Your task to perform on an android device: toggle pop-ups in chrome Image 0: 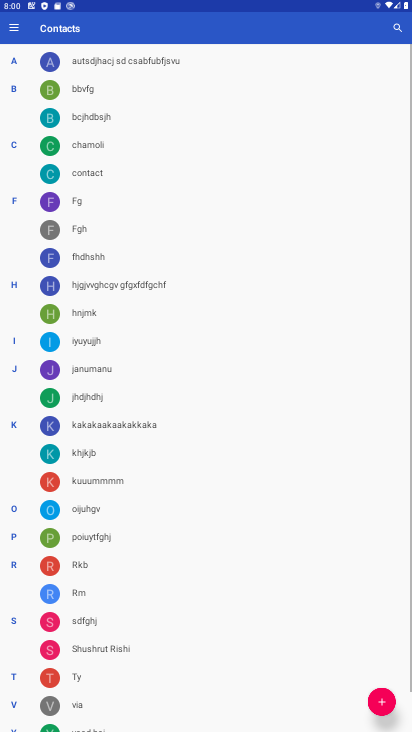
Step 0: click (410, 692)
Your task to perform on an android device: toggle pop-ups in chrome Image 1: 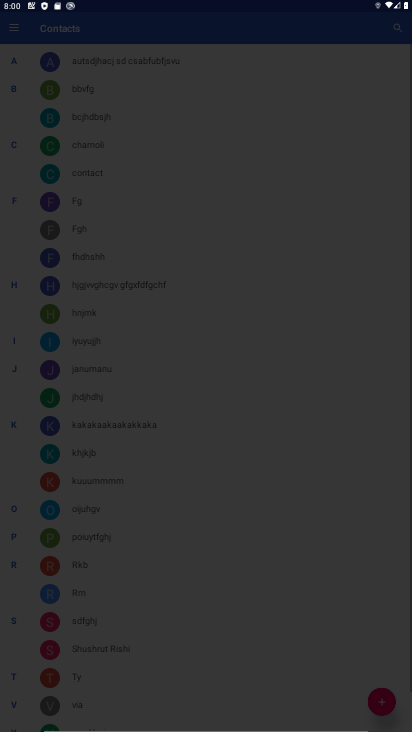
Step 1: press back button
Your task to perform on an android device: toggle pop-ups in chrome Image 2: 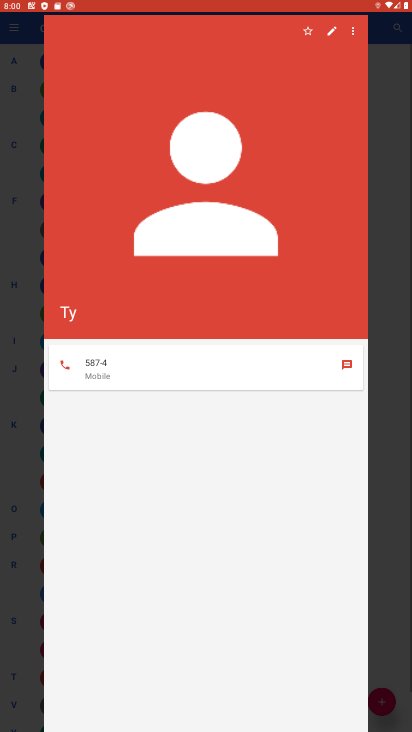
Step 2: press back button
Your task to perform on an android device: toggle pop-ups in chrome Image 3: 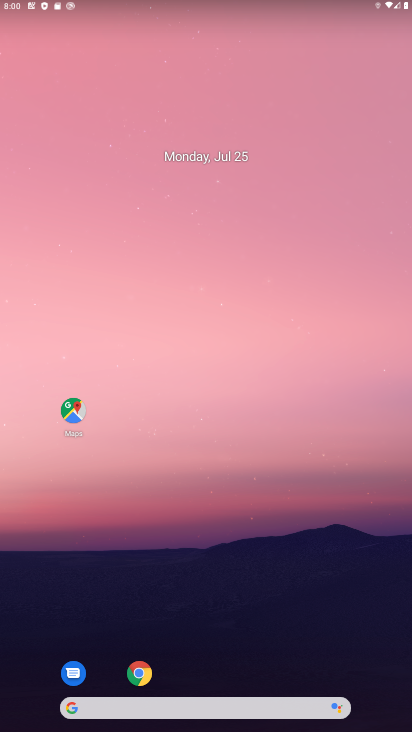
Step 3: drag from (274, 608) to (262, 523)
Your task to perform on an android device: toggle pop-ups in chrome Image 4: 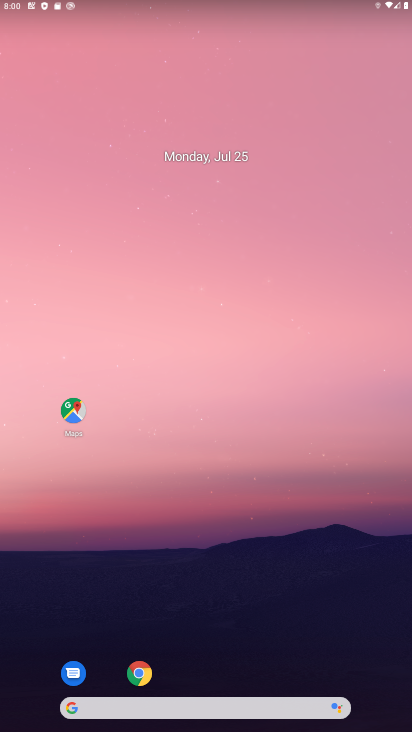
Step 4: drag from (214, 678) to (220, 454)
Your task to perform on an android device: toggle pop-ups in chrome Image 5: 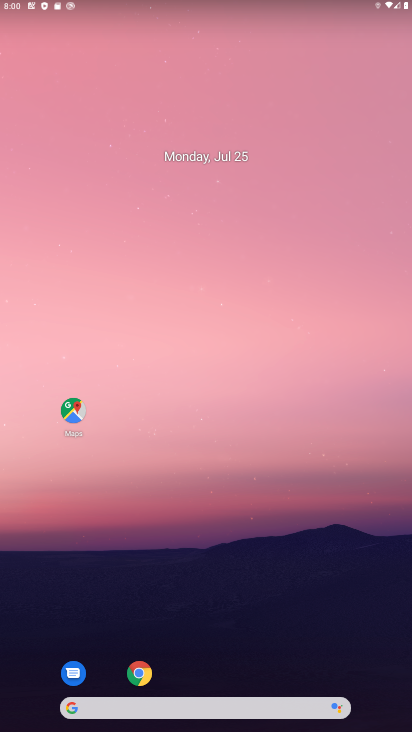
Step 5: drag from (231, 710) to (222, 572)
Your task to perform on an android device: toggle pop-ups in chrome Image 6: 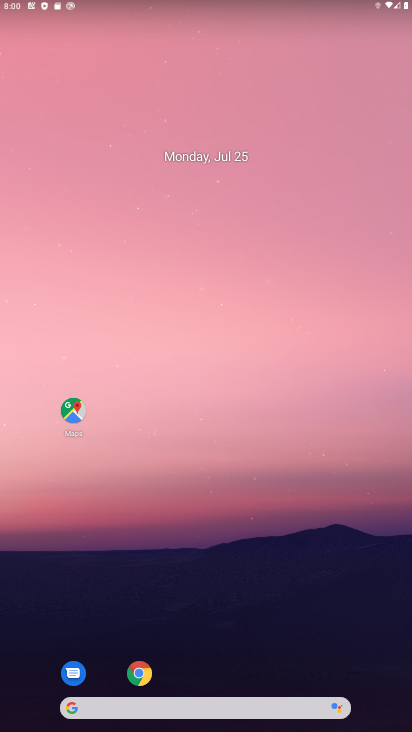
Step 6: drag from (183, 454) to (173, 384)
Your task to perform on an android device: toggle pop-ups in chrome Image 7: 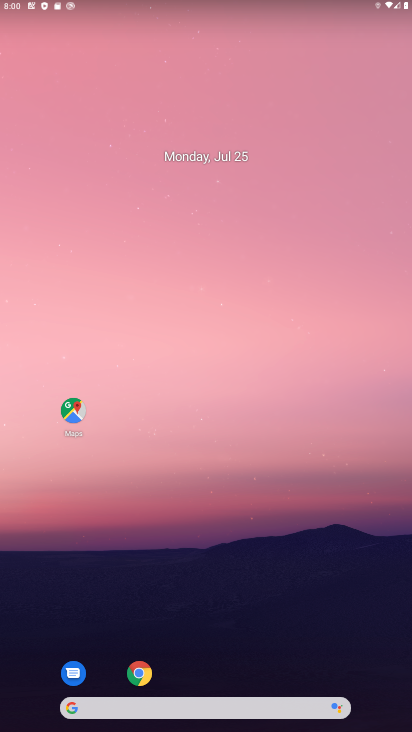
Step 7: drag from (237, 609) to (241, 5)
Your task to perform on an android device: toggle pop-ups in chrome Image 8: 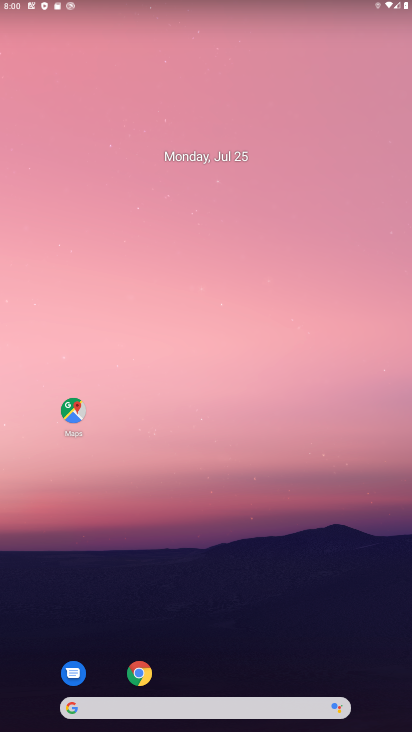
Step 8: drag from (246, 590) to (205, 288)
Your task to perform on an android device: toggle pop-ups in chrome Image 9: 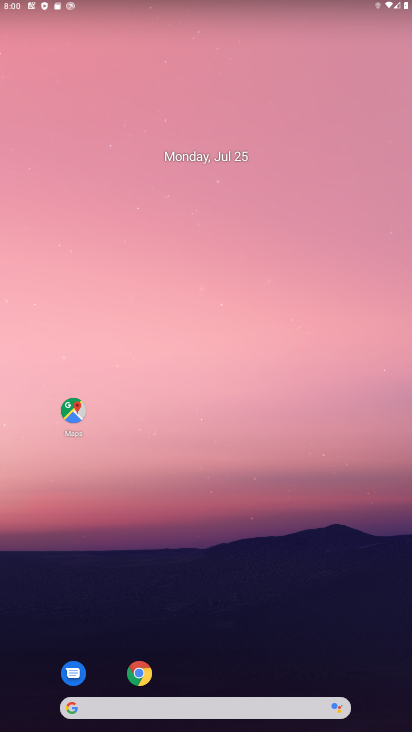
Step 9: click (244, 154)
Your task to perform on an android device: toggle pop-ups in chrome Image 10: 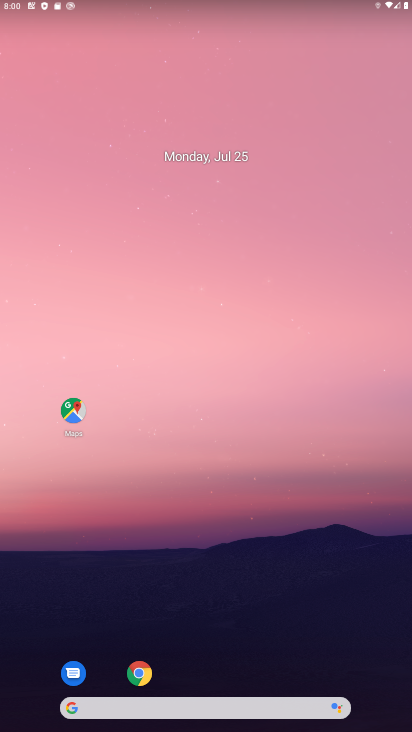
Step 10: drag from (254, 554) to (275, 61)
Your task to perform on an android device: toggle pop-ups in chrome Image 11: 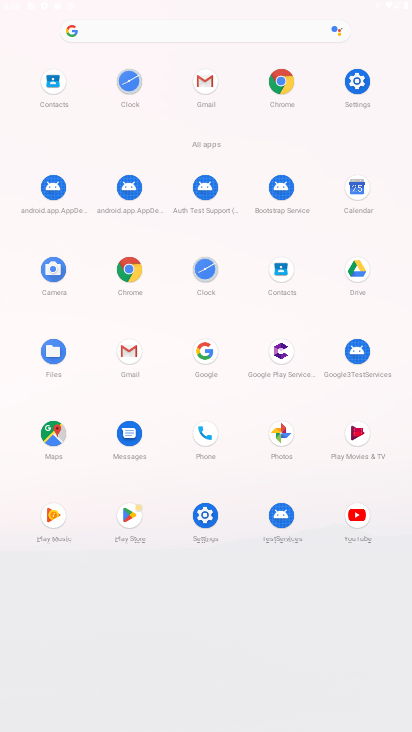
Step 11: drag from (255, 646) to (277, 90)
Your task to perform on an android device: toggle pop-ups in chrome Image 12: 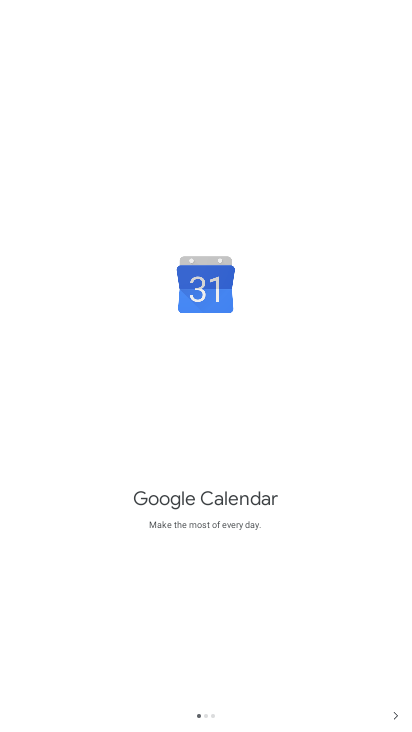
Step 12: press back button
Your task to perform on an android device: toggle pop-ups in chrome Image 13: 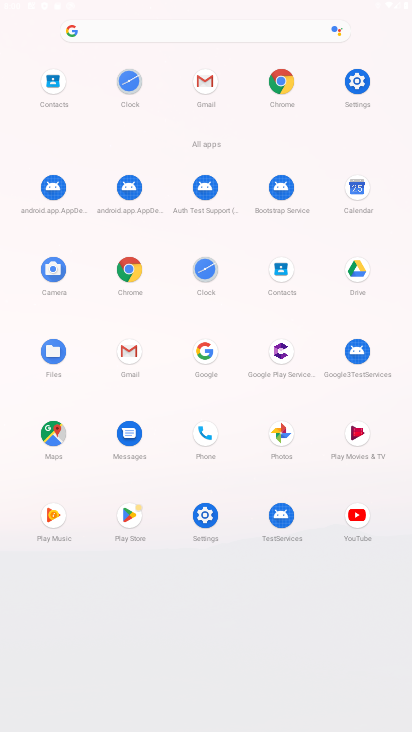
Step 13: click (120, 269)
Your task to perform on an android device: toggle pop-ups in chrome Image 14: 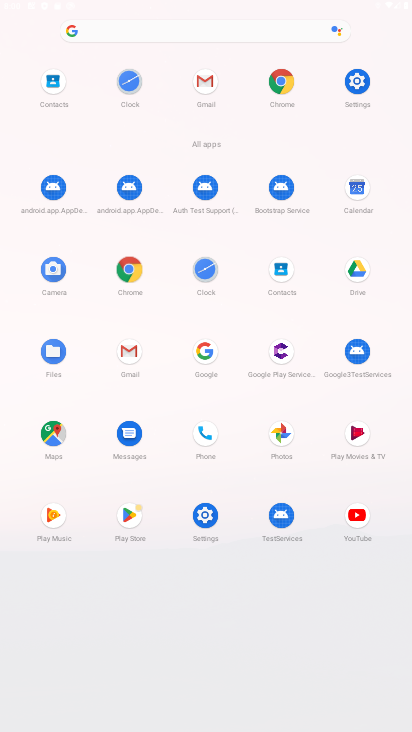
Step 14: click (122, 266)
Your task to perform on an android device: toggle pop-ups in chrome Image 15: 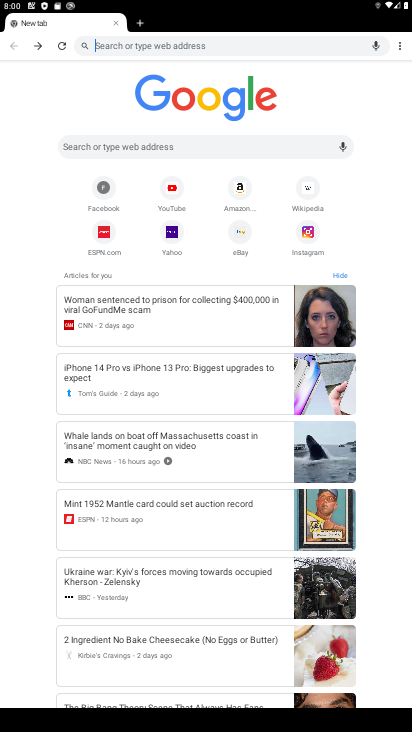
Step 15: click (400, 46)
Your task to perform on an android device: toggle pop-ups in chrome Image 16: 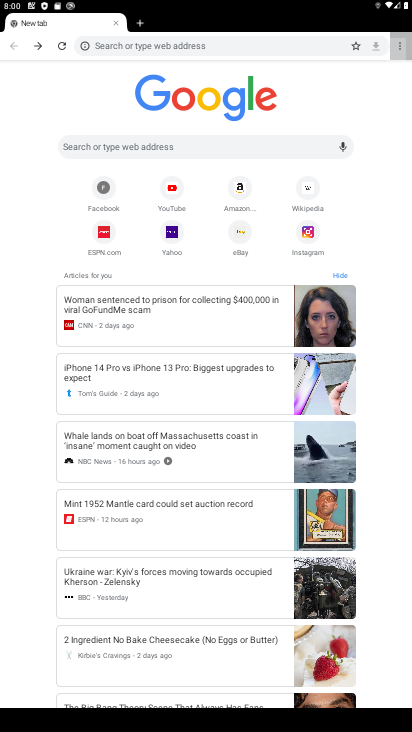
Step 16: click (400, 46)
Your task to perform on an android device: toggle pop-ups in chrome Image 17: 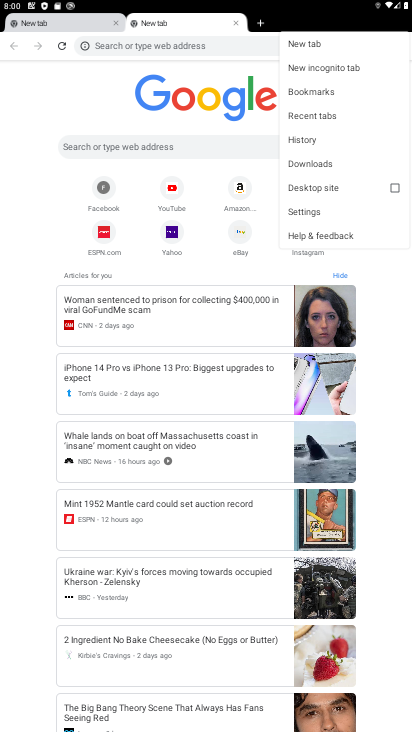
Step 17: click (294, 217)
Your task to perform on an android device: toggle pop-ups in chrome Image 18: 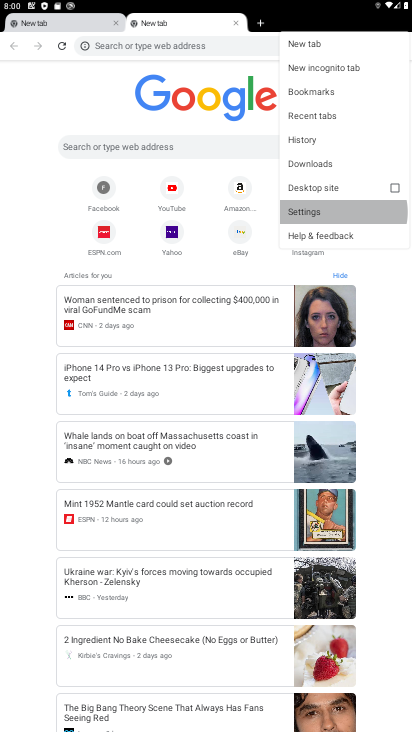
Step 18: click (300, 210)
Your task to perform on an android device: toggle pop-ups in chrome Image 19: 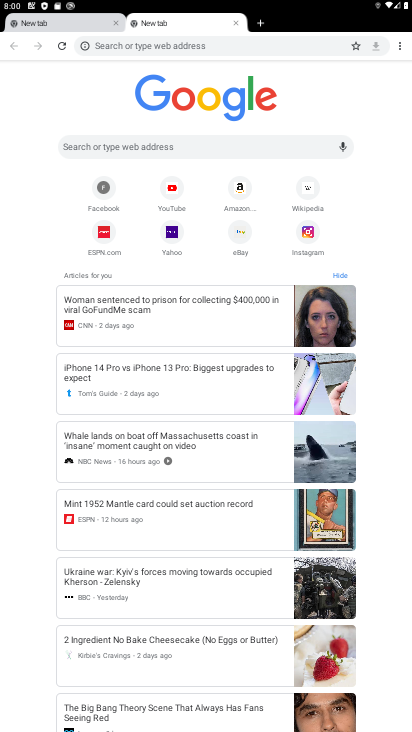
Step 19: click (302, 211)
Your task to perform on an android device: toggle pop-ups in chrome Image 20: 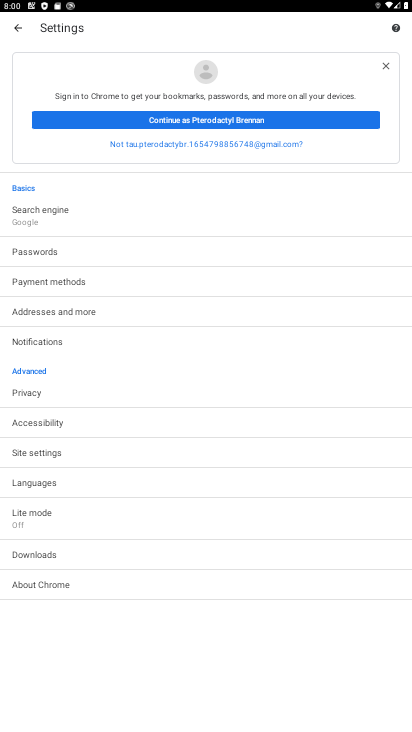
Step 20: click (34, 448)
Your task to perform on an android device: toggle pop-ups in chrome Image 21: 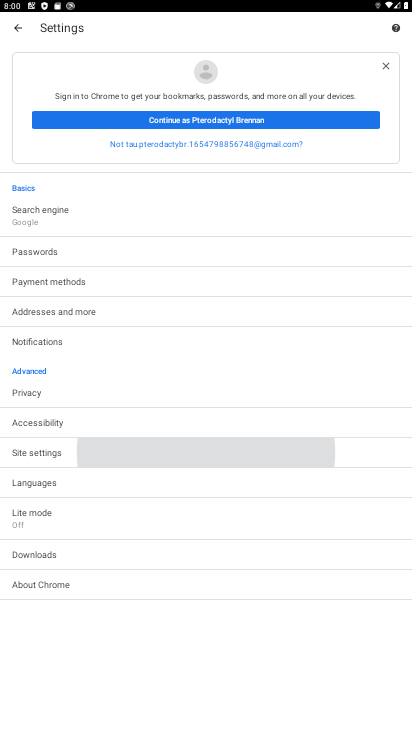
Step 21: click (37, 458)
Your task to perform on an android device: toggle pop-ups in chrome Image 22: 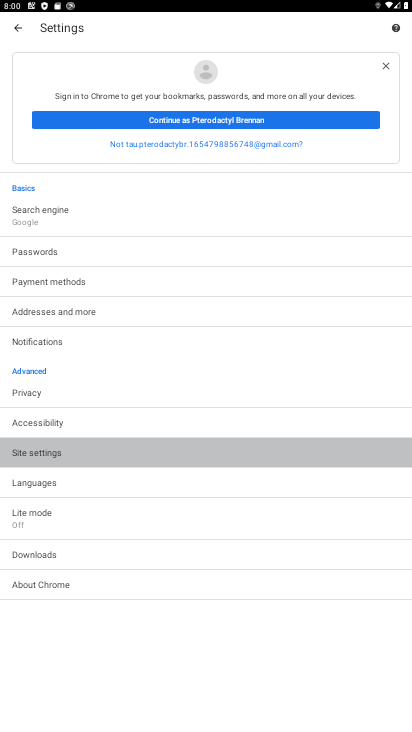
Step 22: click (37, 459)
Your task to perform on an android device: toggle pop-ups in chrome Image 23: 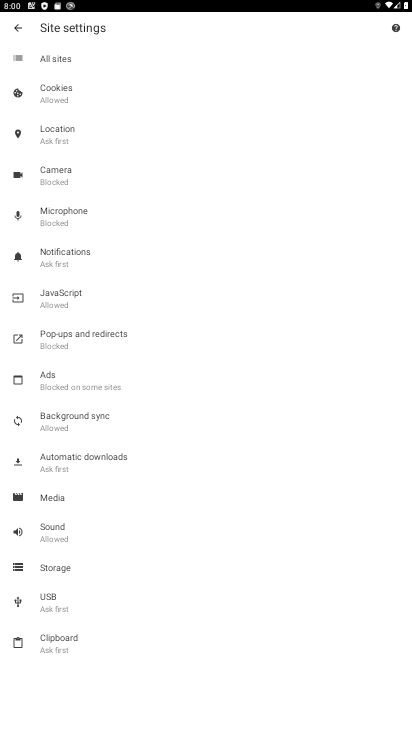
Step 23: click (60, 337)
Your task to perform on an android device: toggle pop-ups in chrome Image 24: 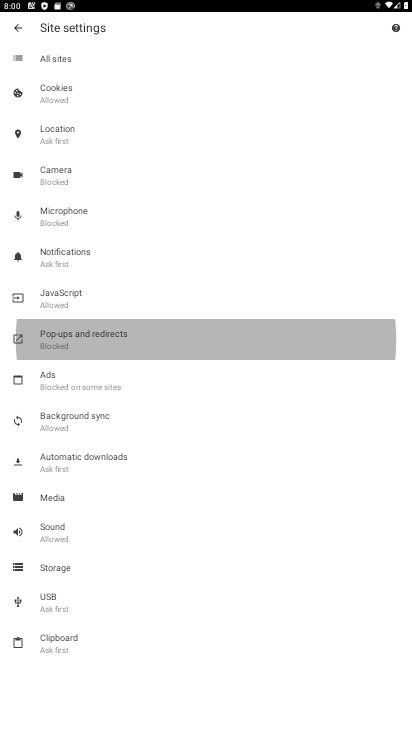
Step 24: click (60, 337)
Your task to perform on an android device: toggle pop-ups in chrome Image 25: 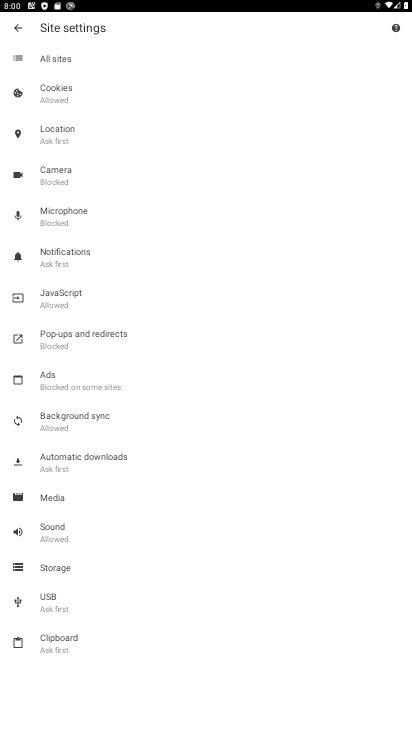
Step 25: click (59, 334)
Your task to perform on an android device: toggle pop-ups in chrome Image 26: 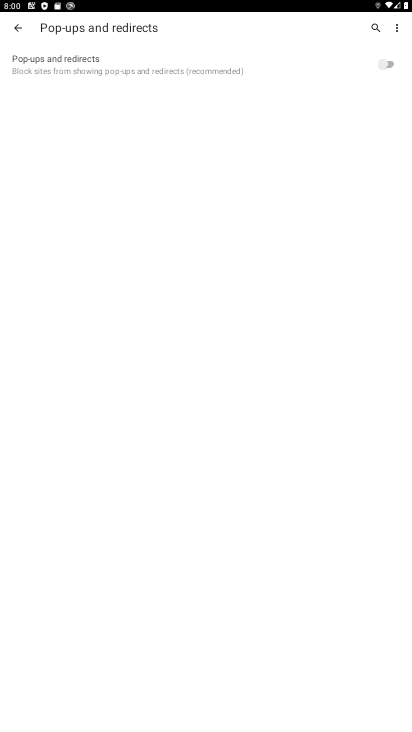
Step 26: click (380, 64)
Your task to perform on an android device: toggle pop-ups in chrome Image 27: 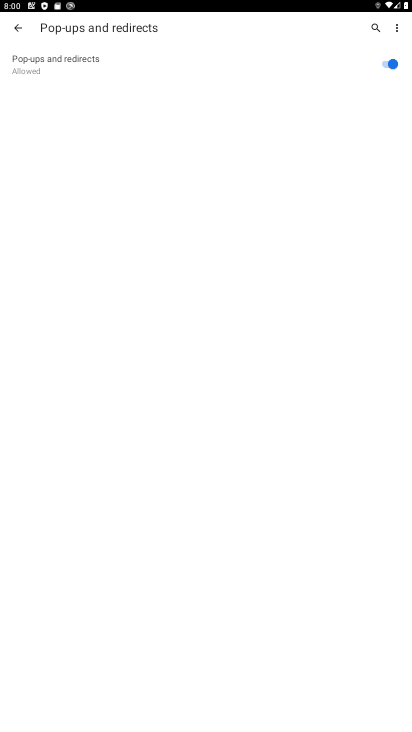
Step 27: task complete